Your task to perform on an android device: check the backup settings in the google photos Image 0: 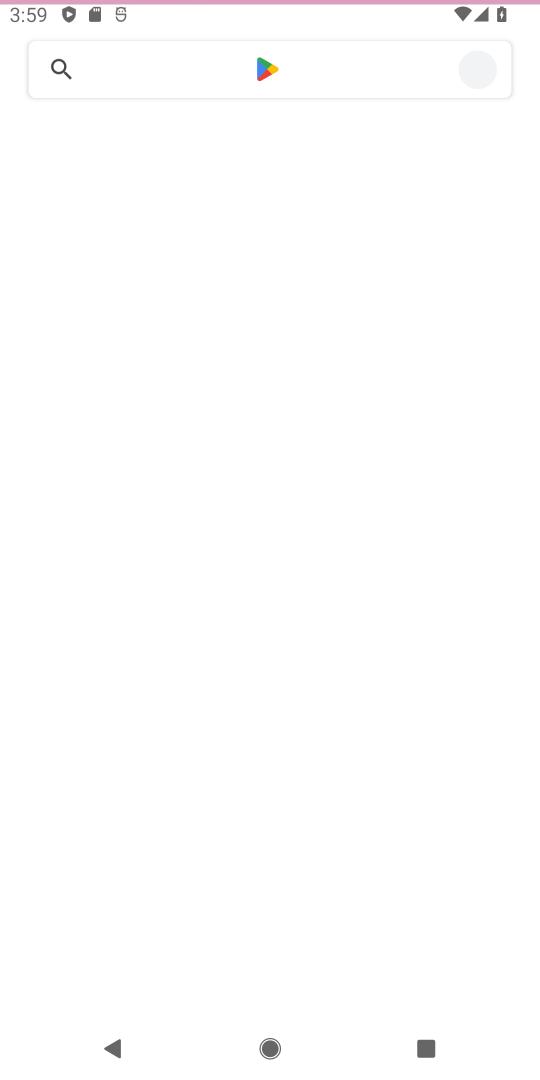
Step 0: press home button
Your task to perform on an android device: check the backup settings in the google photos Image 1: 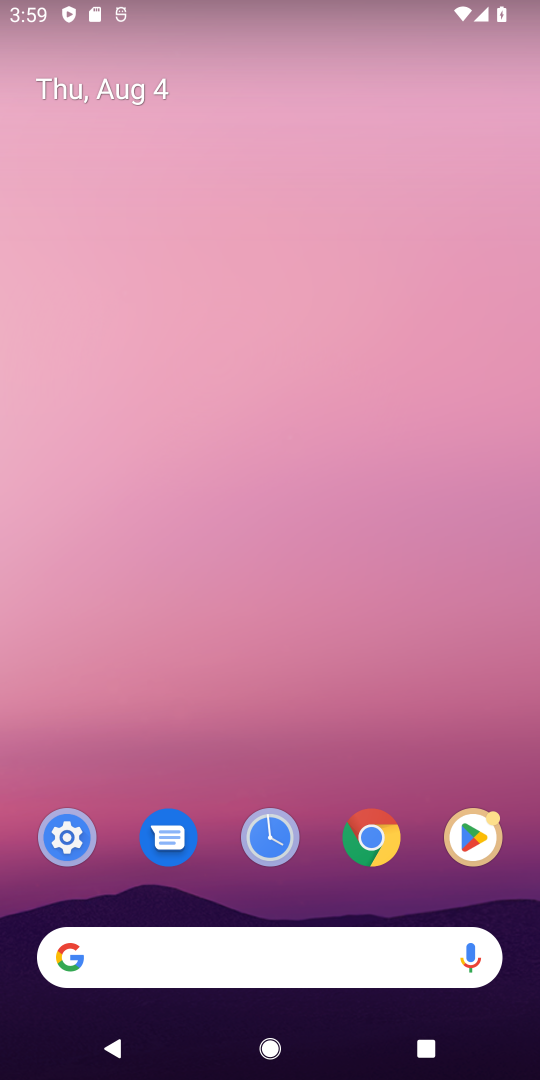
Step 1: press home button
Your task to perform on an android device: check the backup settings in the google photos Image 2: 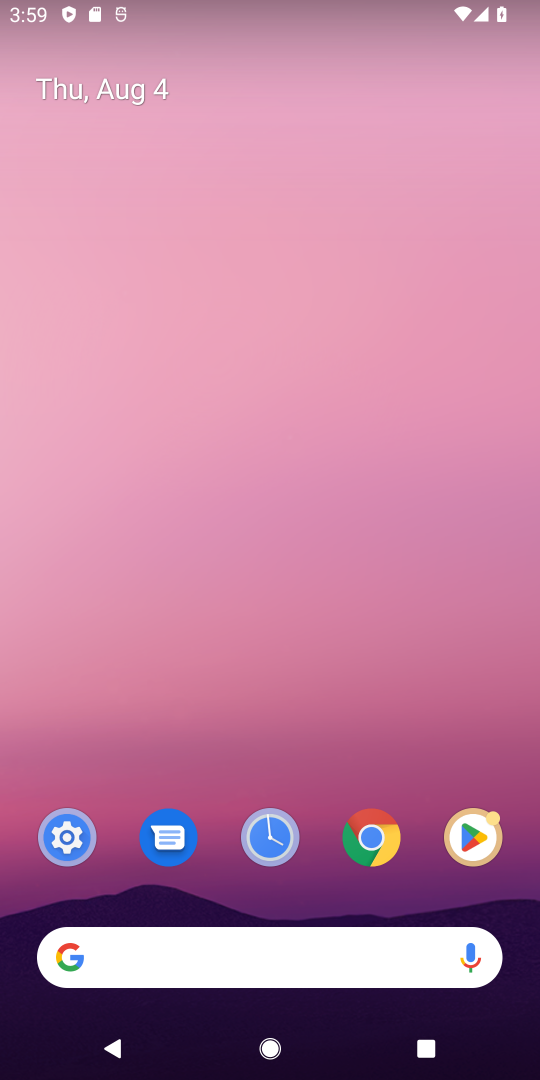
Step 2: drag from (335, 766) to (370, 15)
Your task to perform on an android device: check the backup settings in the google photos Image 3: 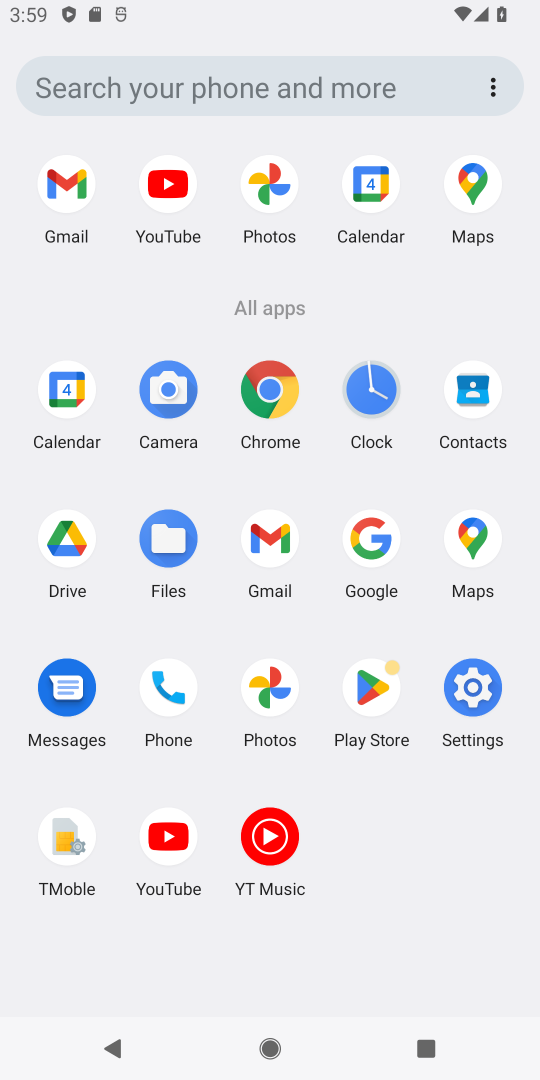
Step 3: click (265, 689)
Your task to perform on an android device: check the backup settings in the google photos Image 4: 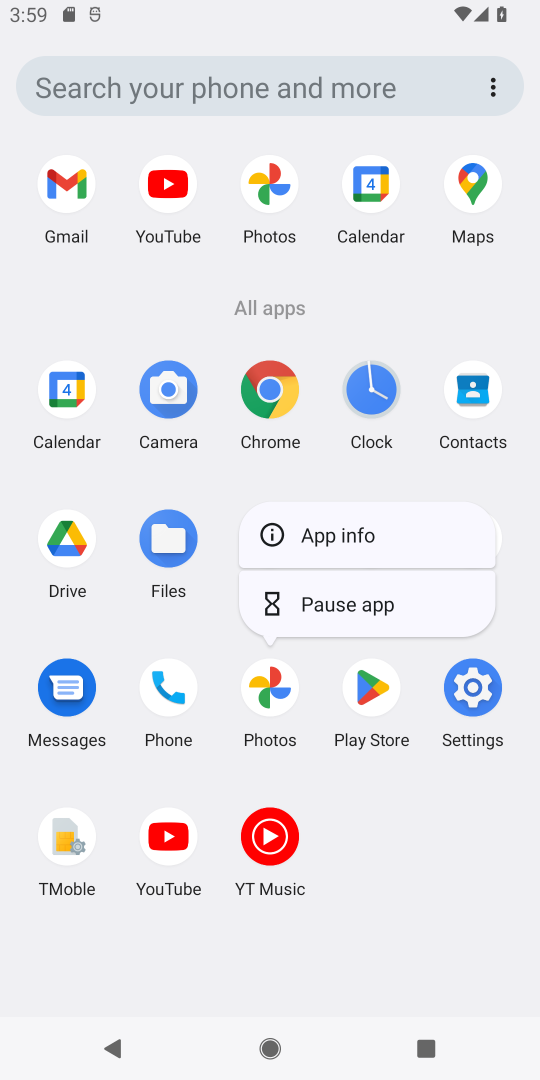
Step 4: click (259, 690)
Your task to perform on an android device: check the backup settings in the google photos Image 5: 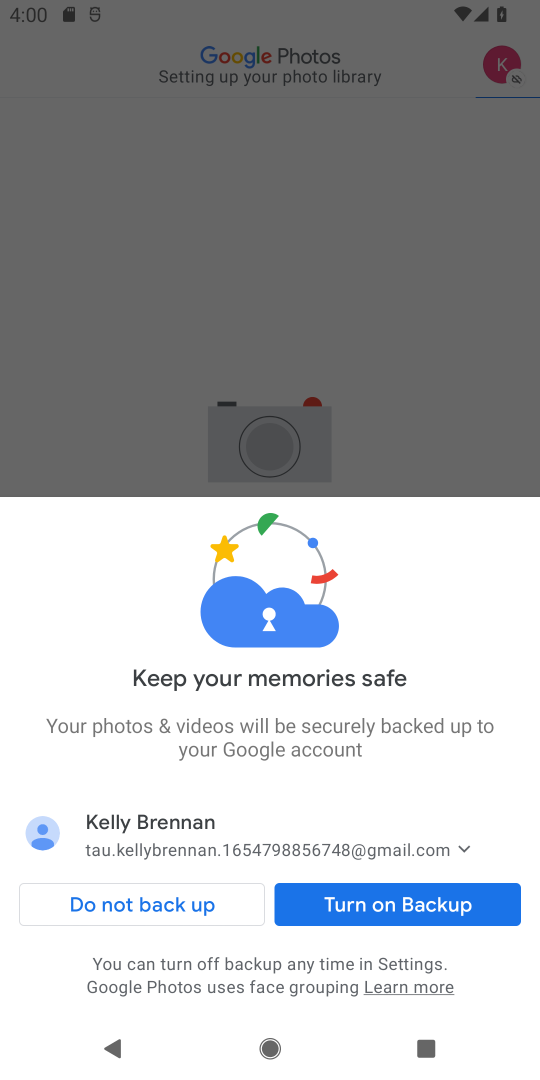
Step 5: click (328, 904)
Your task to perform on an android device: check the backup settings in the google photos Image 6: 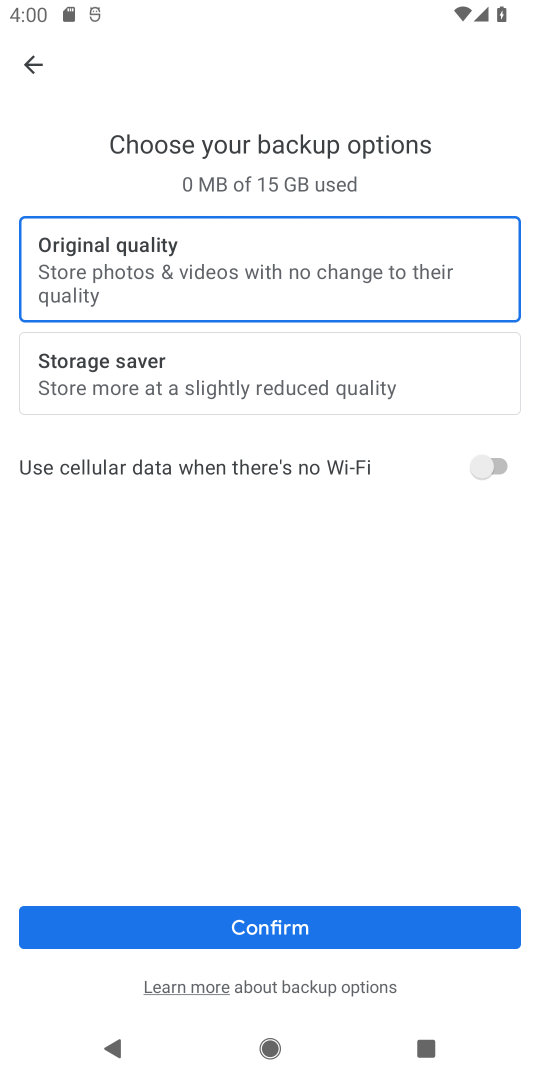
Step 6: click (262, 915)
Your task to perform on an android device: check the backup settings in the google photos Image 7: 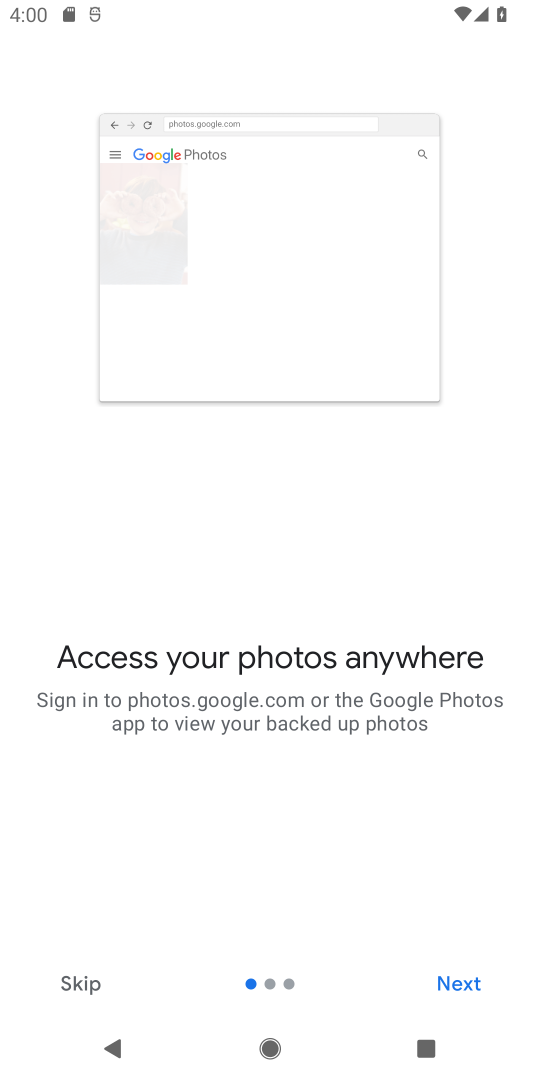
Step 7: click (84, 968)
Your task to perform on an android device: check the backup settings in the google photos Image 8: 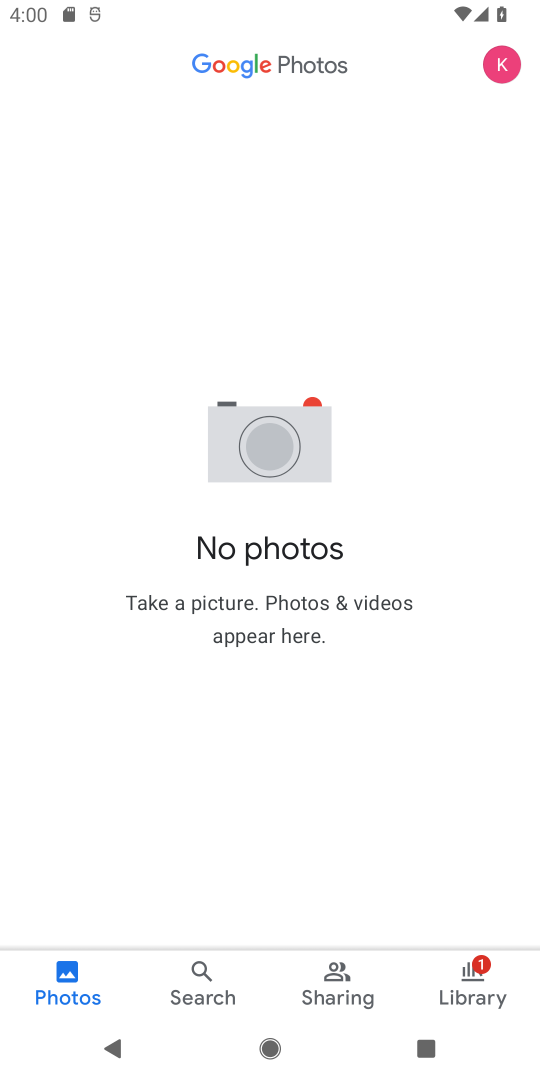
Step 8: click (491, 54)
Your task to perform on an android device: check the backup settings in the google photos Image 9: 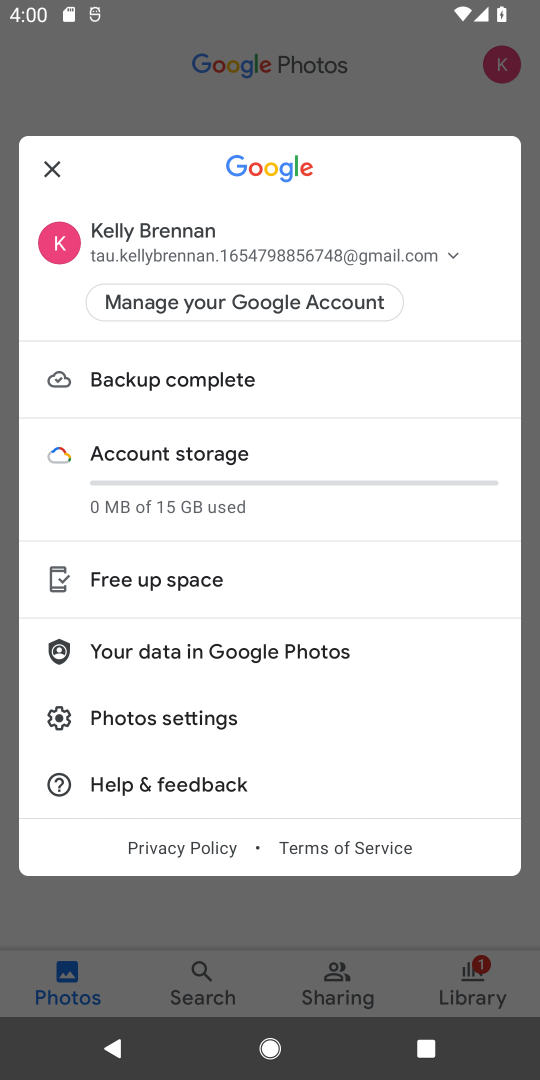
Step 9: click (215, 373)
Your task to perform on an android device: check the backup settings in the google photos Image 10: 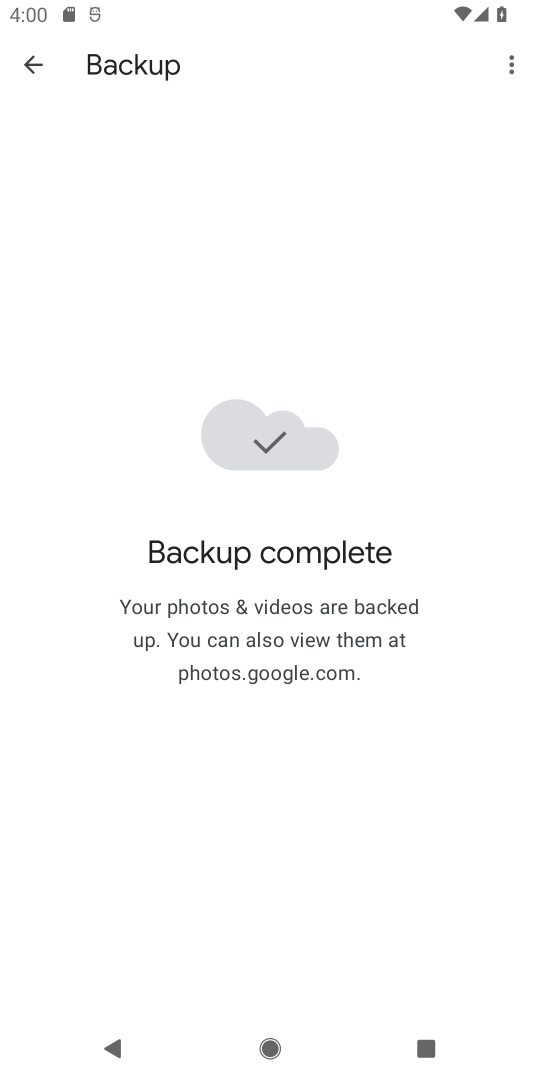
Step 10: click (505, 76)
Your task to perform on an android device: check the backup settings in the google photos Image 11: 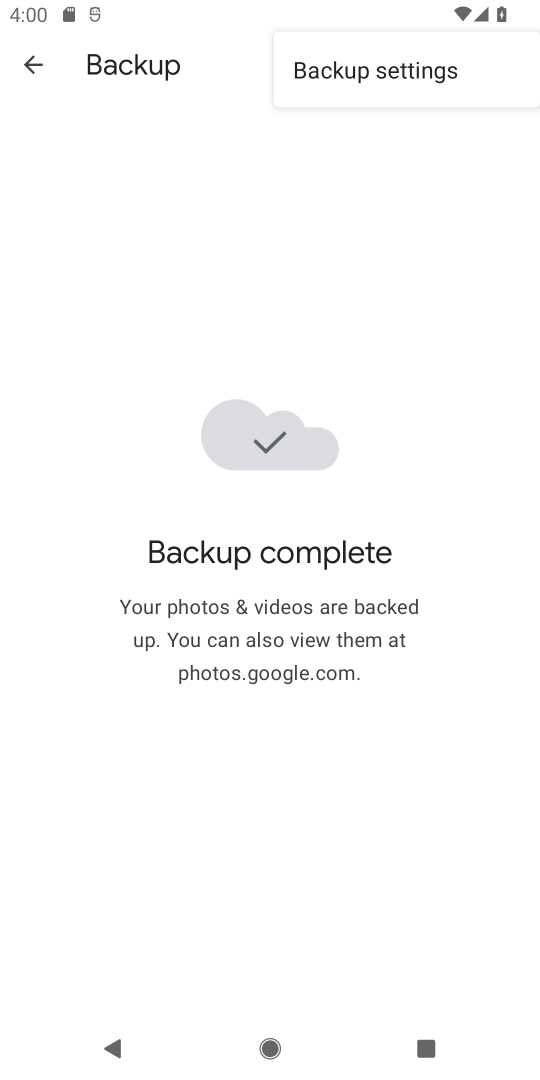
Step 11: click (407, 73)
Your task to perform on an android device: check the backup settings in the google photos Image 12: 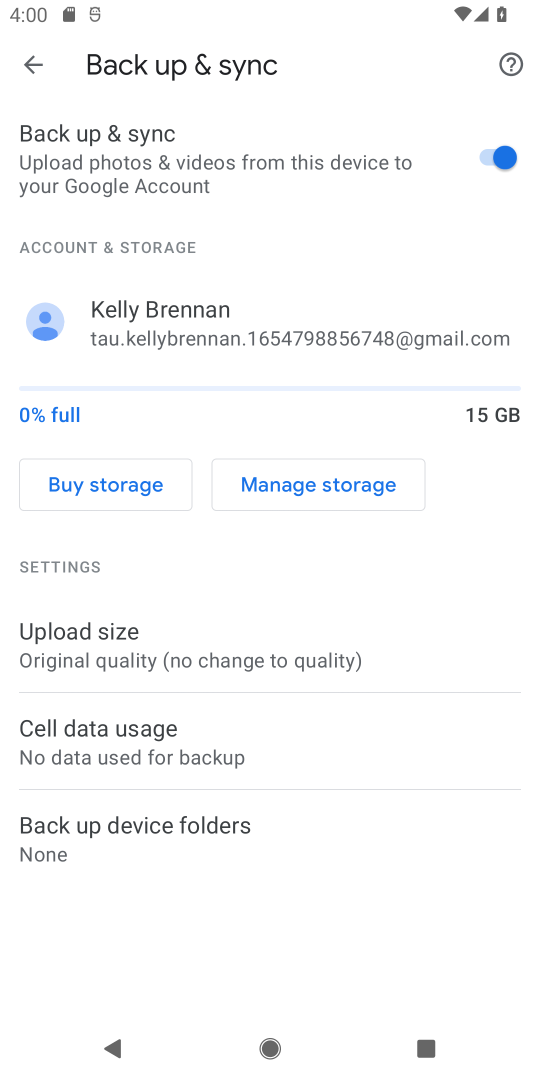
Step 12: task complete